Your task to perform on an android device: Go to settings Image 0: 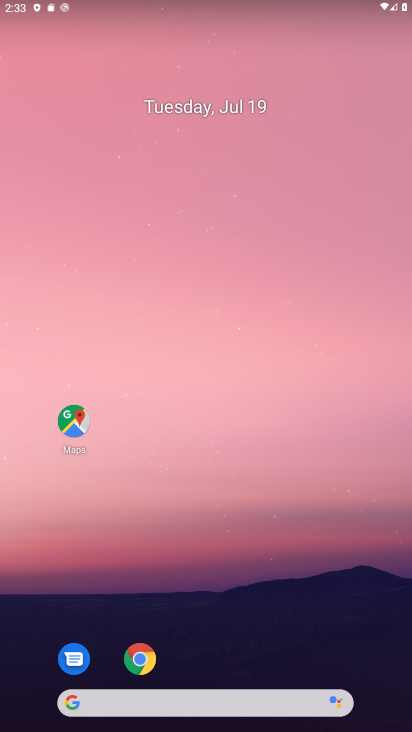
Step 0: drag from (206, 704) to (340, 154)
Your task to perform on an android device: Go to settings Image 1: 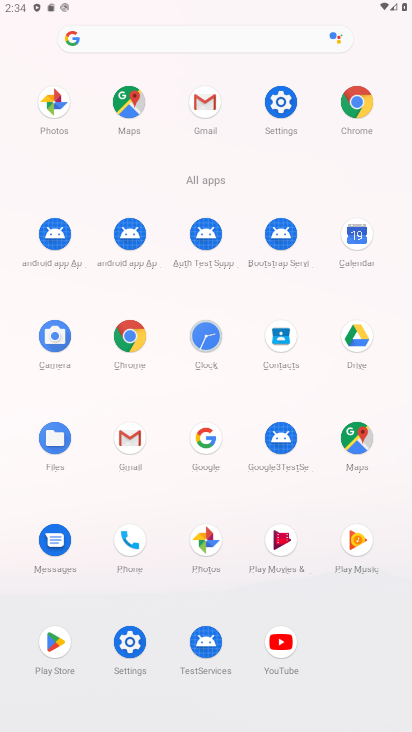
Step 1: click (279, 104)
Your task to perform on an android device: Go to settings Image 2: 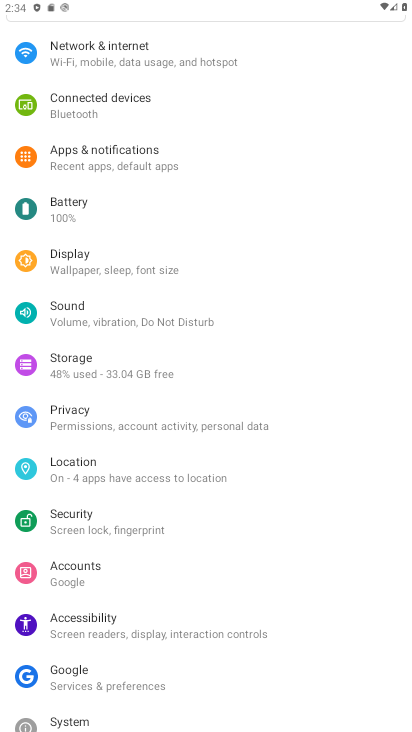
Step 2: task complete